Your task to perform on an android device: Search for Italian restaurants on Maps Image 0: 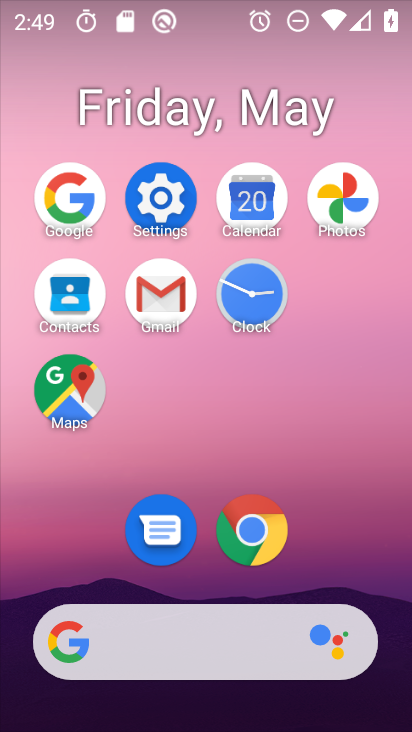
Step 0: click (53, 383)
Your task to perform on an android device: Search for Italian restaurants on Maps Image 1: 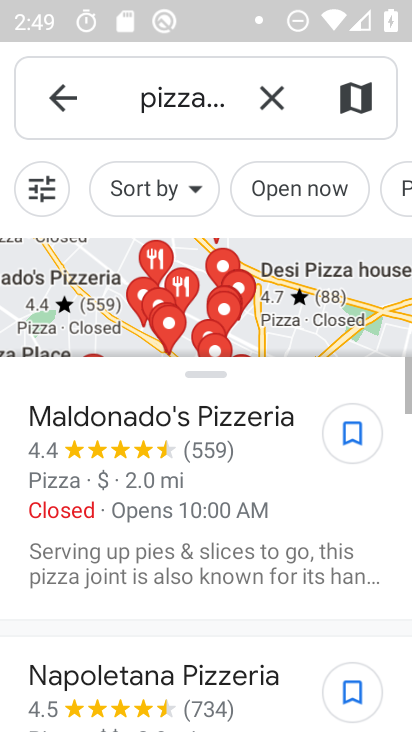
Step 1: click (275, 89)
Your task to perform on an android device: Search for Italian restaurants on Maps Image 2: 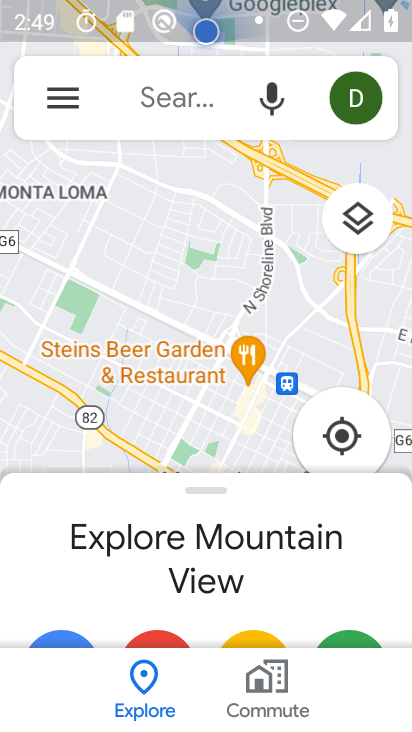
Step 2: click (184, 105)
Your task to perform on an android device: Search for Italian restaurants on Maps Image 3: 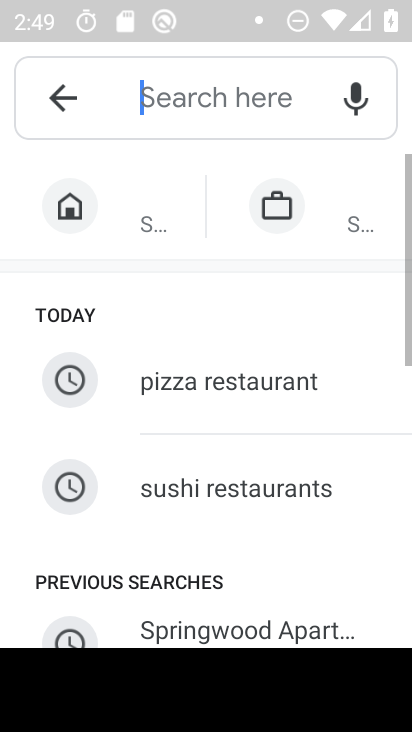
Step 3: drag from (251, 447) to (272, 58)
Your task to perform on an android device: Search for Italian restaurants on Maps Image 4: 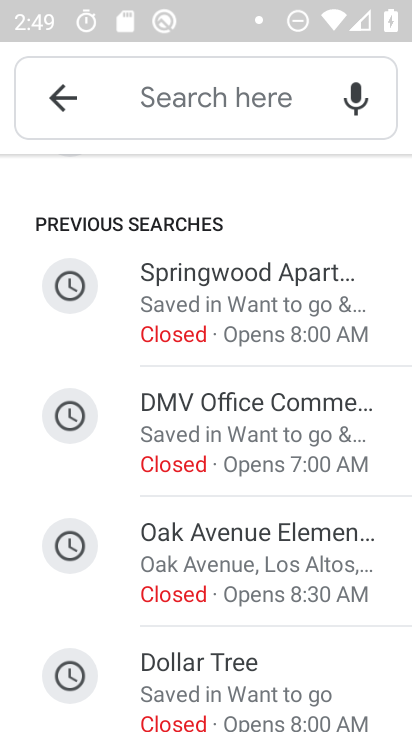
Step 4: click (186, 97)
Your task to perform on an android device: Search for Italian restaurants on Maps Image 5: 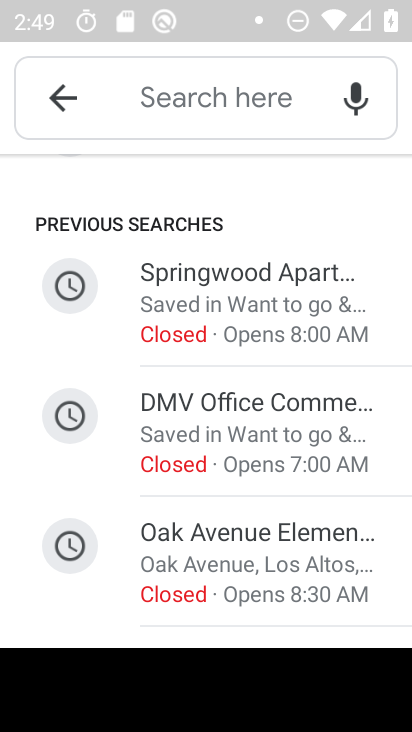
Step 5: type "italian restaurants"
Your task to perform on an android device: Search for Italian restaurants on Maps Image 6: 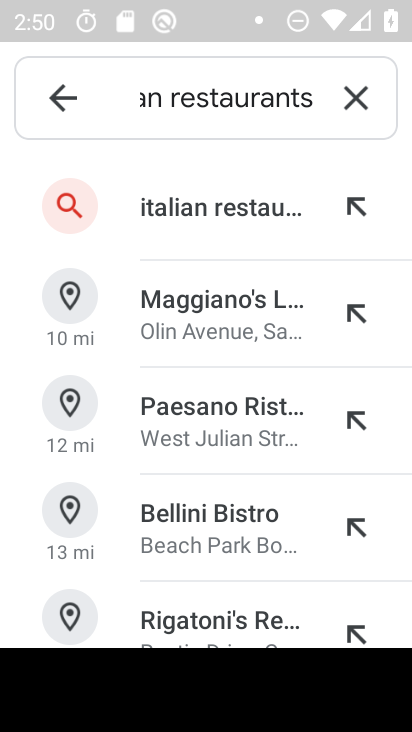
Step 6: task complete